Your task to perform on an android device: Go to Google maps Image 0: 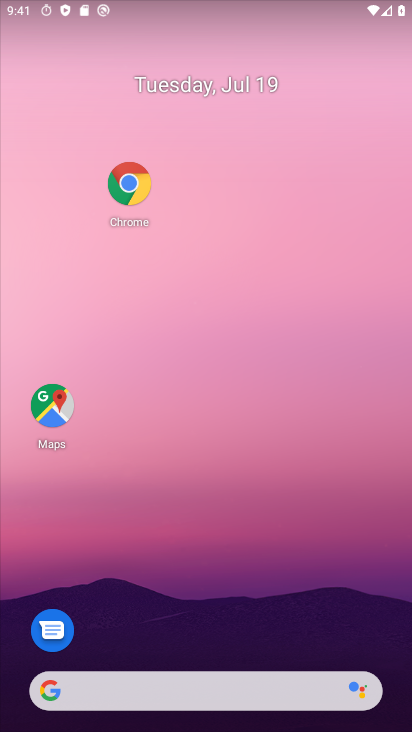
Step 0: click (50, 398)
Your task to perform on an android device: Go to Google maps Image 1: 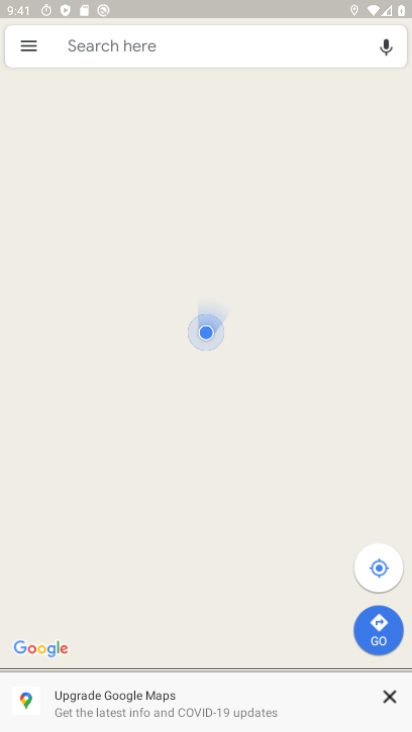
Step 1: click (387, 693)
Your task to perform on an android device: Go to Google maps Image 2: 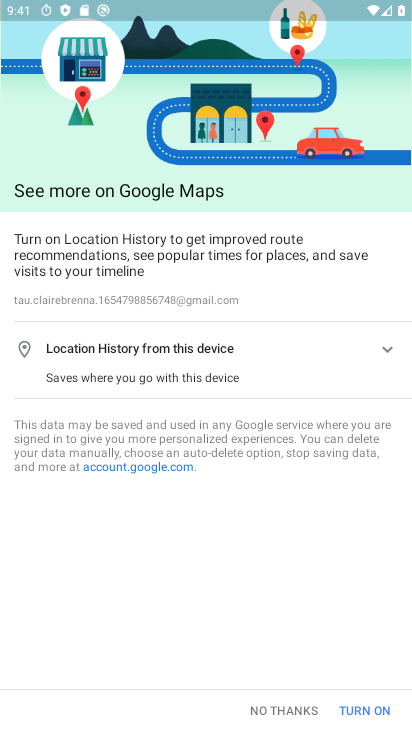
Step 2: click (382, 701)
Your task to perform on an android device: Go to Google maps Image 3: 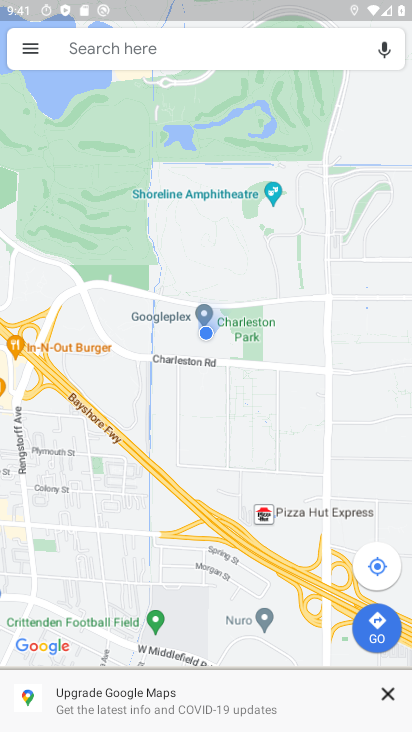
Step 3: click (389, 689)
Your task to perform on an android device: Go to Google maps Image 4: 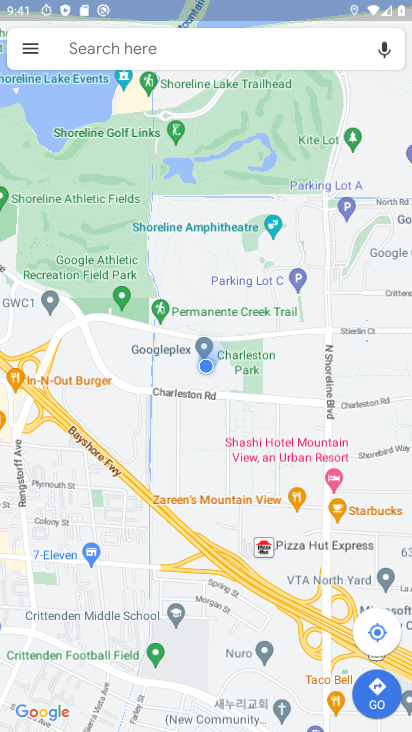
Step 4: task complete